Your task to perform on an android device: Open sound settings Image 0: 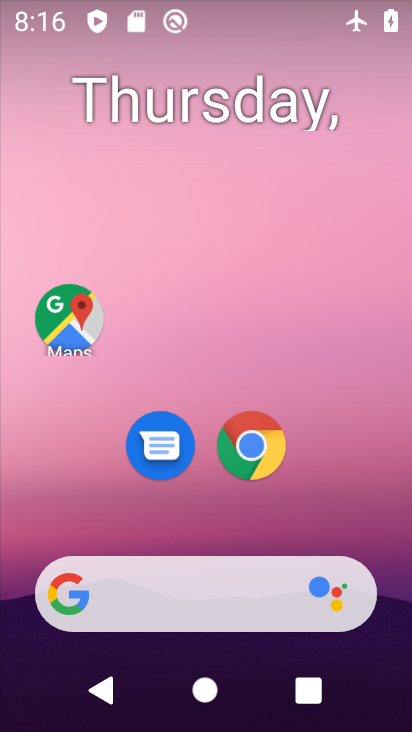
Step 0: drag from (314, 520) to (286, 90)
Your task to perform on an android device: Open sound settings Image 1: 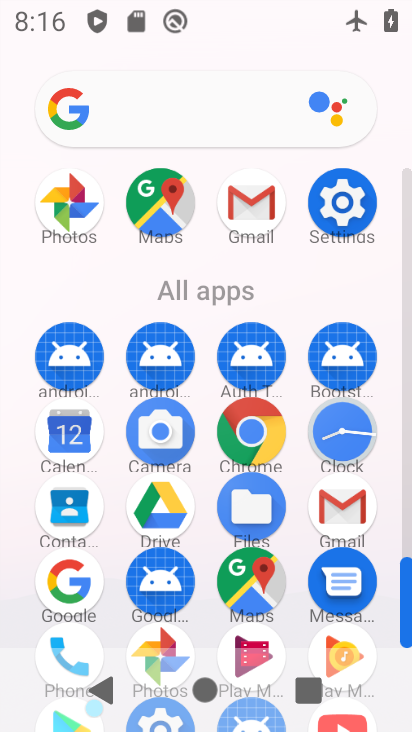
Step 1: click (347, 192)
Your task to perform on an android device: Open sound settings Image 2: 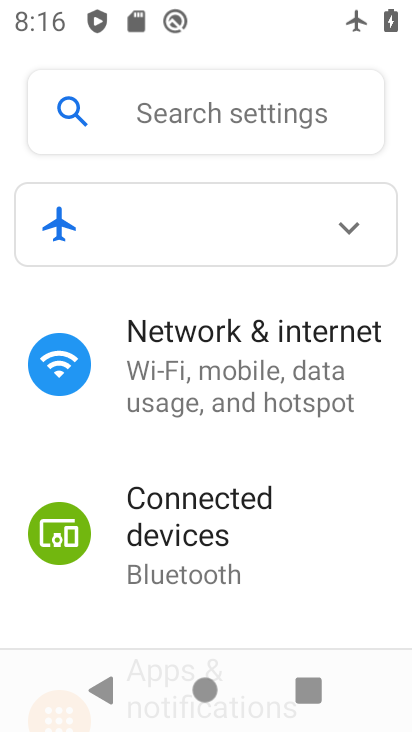
Step 2: drag from (286, 592) to (280, 188)
Your task to perform on an android device: Open sound settings Image 3: 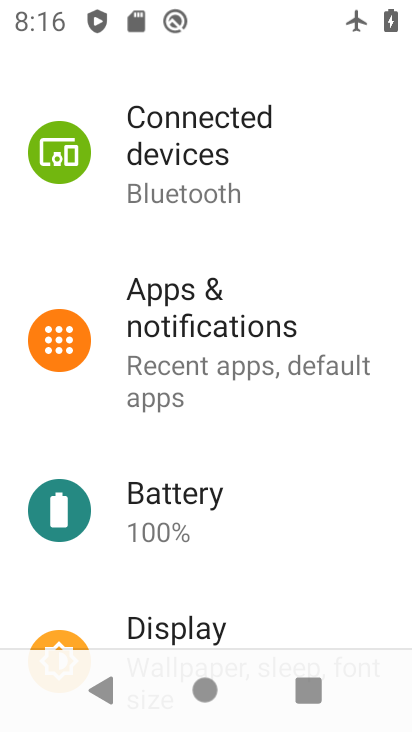
Step 3: drag from (243, 608) to (213, 209)
Your task to perform on an android device: Open sound settings Image 4: 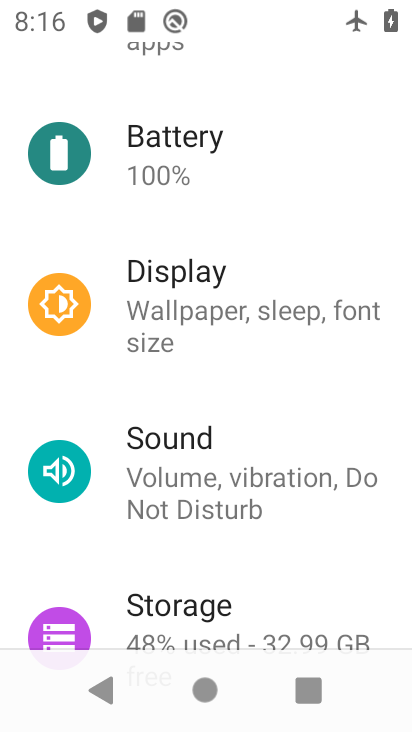
Step 4: click (162, 482)
Your task to perform on an android device: Open sound settings Image 5: 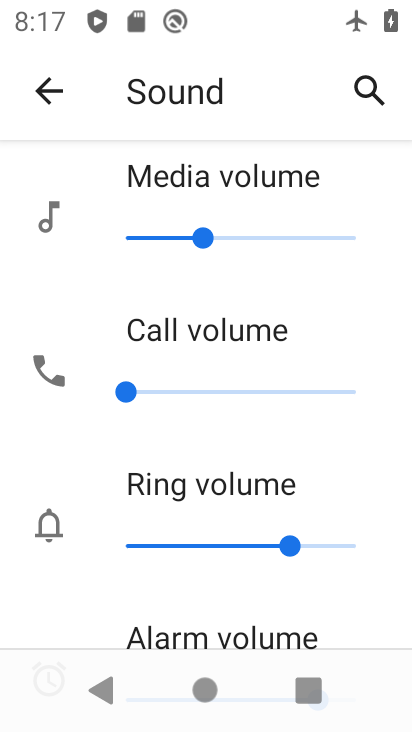
Step 5: task complete